Your task to perform on an android device: turn on bluetooth scan Image 0: 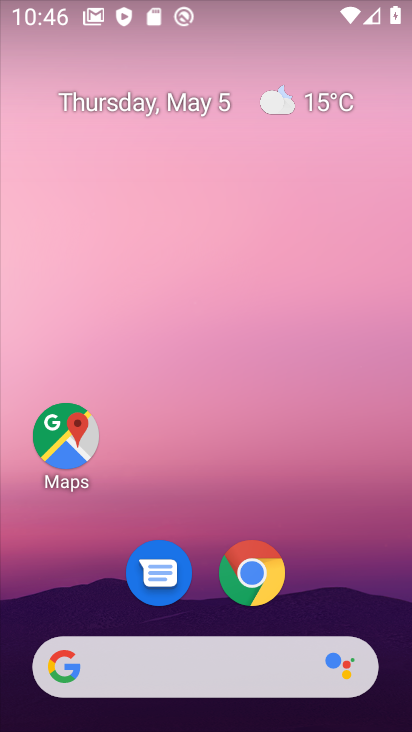
Step 0: drag from (74, 612) to (221, 113)
Your task to perform on an android device: turn on bluetooth scan Image 1: 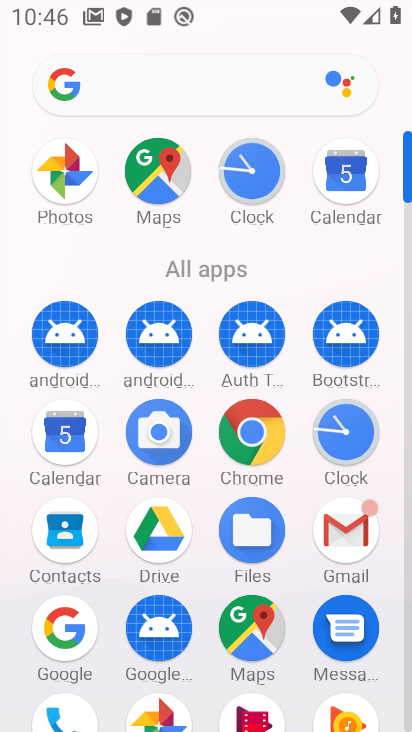
Step 1: drag from (153, 653) to (219, 301)
Your task to perform on an android device: turn on bluetooth scan Image 2: 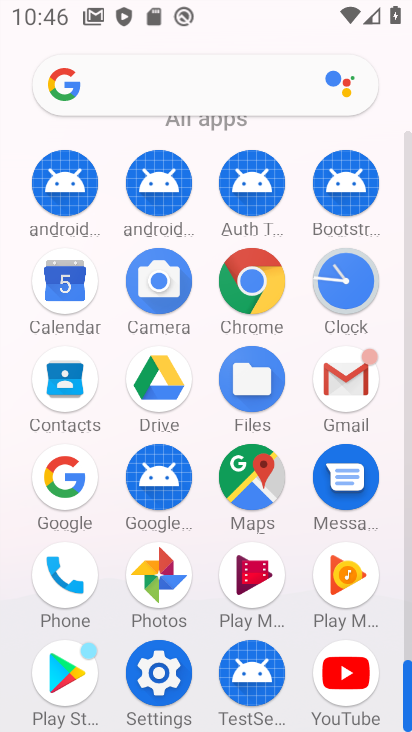
Step 2: click (155, 659)
Your task to perform on an android device: turn on bluetooth scan Image 3: 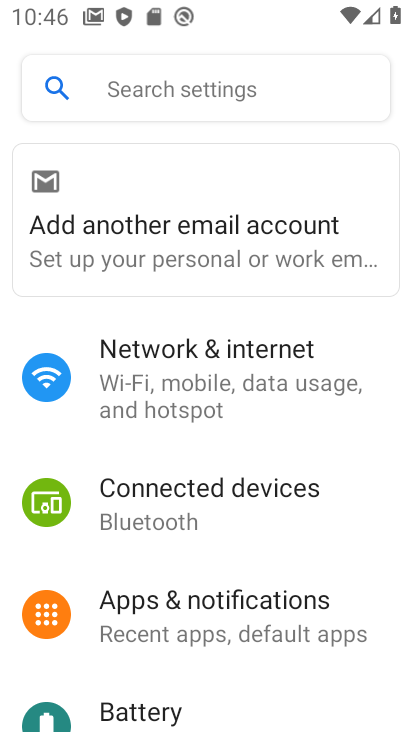
Step 3: click (246, 526)
Your task to perform on an android device: turn on bluetooth scan Image 4: 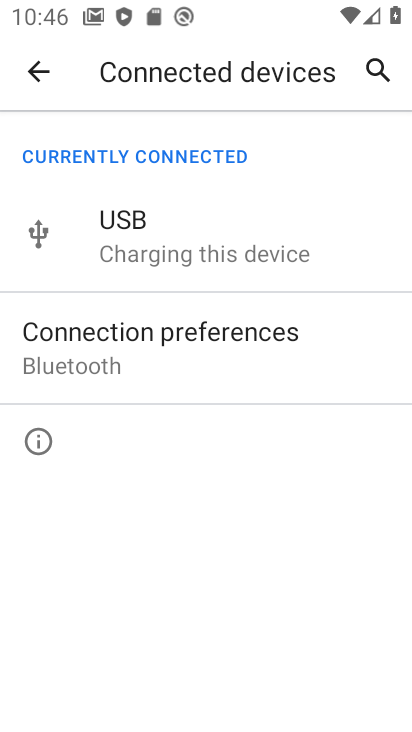
Step 4: click (243, 360)
Your task to perform on an android device: turn on bluetooth scan Image 5: 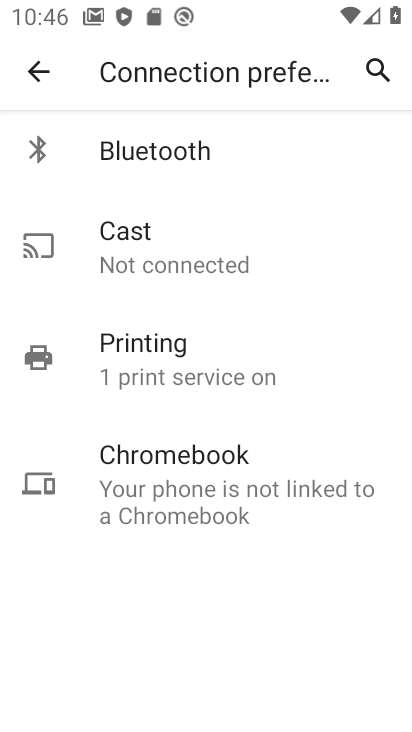
Step 5: click (203, 177)
Your task to perform on an android device: turn on bluetooth scan Image 6: 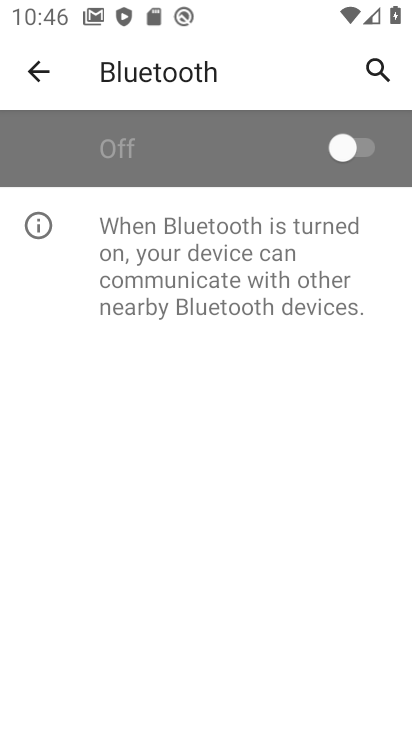
Step 6: click (203, 177)
Your task to perform on an android device: turn on bluetooth scan Image 7: 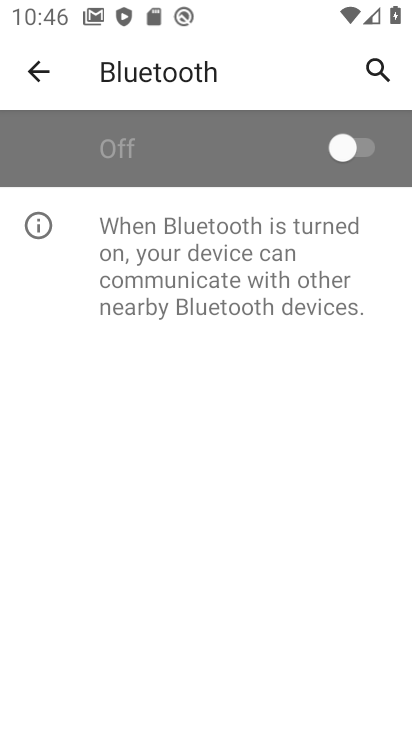
Step 7: click (366, 142)
Your task to perform on an android device: turn on bluetooth scan Image 8: 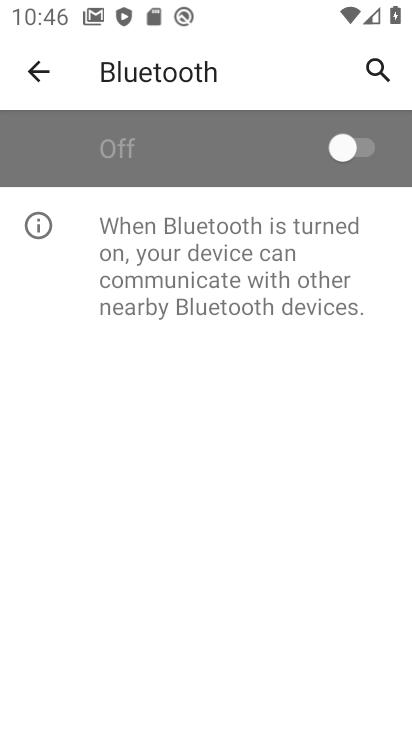
Step 8: click (365, 142)
Your task to perform on an android device: turn on bluetooth scan Image 9: 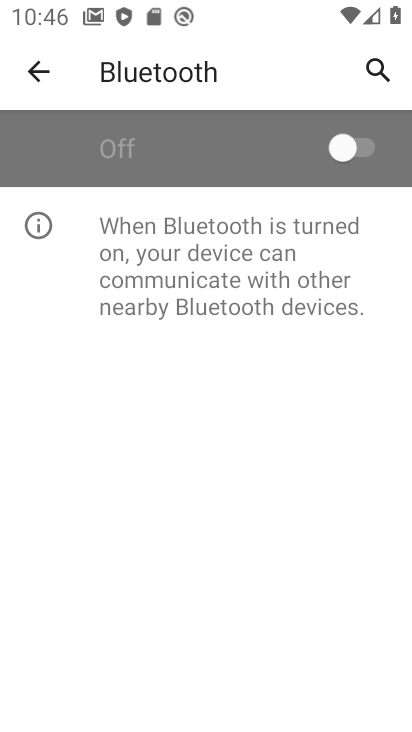
Step 9: click (362, 145)
Your task to perform on an android device: turn on bluetooth scan Image 10: 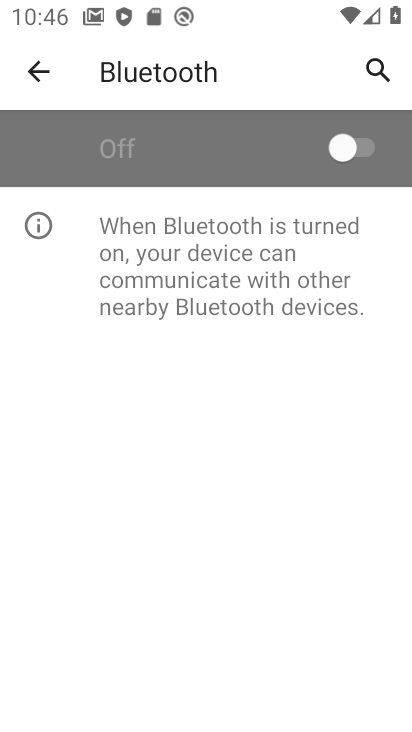
Step 10: click (376, 142)
Your task to perform on an android device: turn on bluetooth scan Image 11: 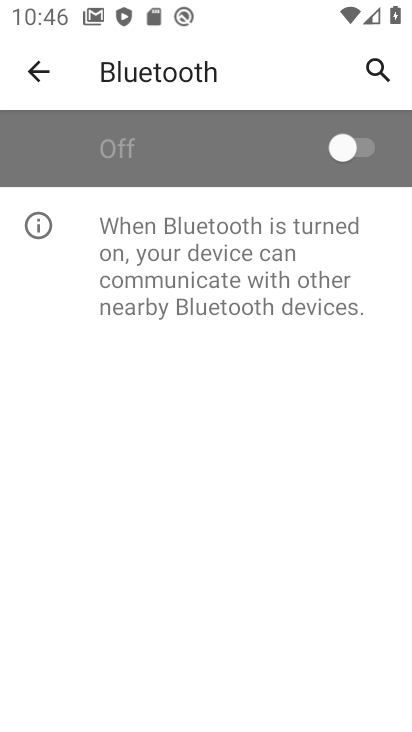
Step 11: click (376, 142)
Your task to perform on an android device: turn on bluetooth scan Image 12: 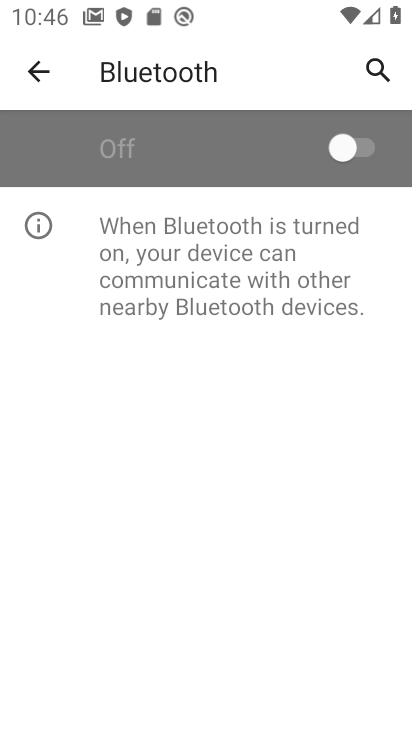
Step 12: click (376, 142)
Your task to perform on an android device: turn on bluetooth scan Image 13: 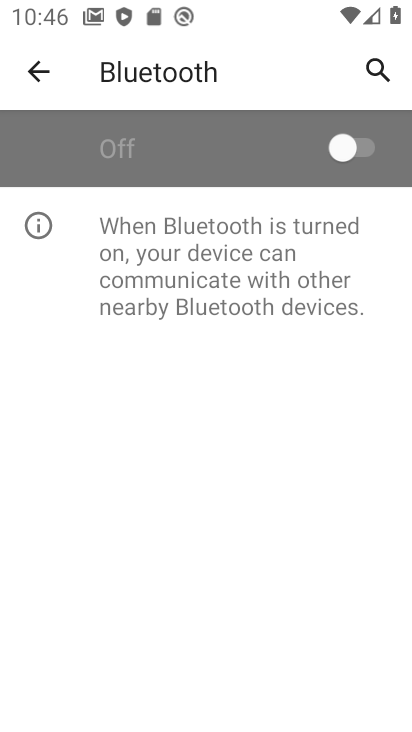
Step 13: task complete